Your task to perform on an android device: Open Wikipedia Image 0: 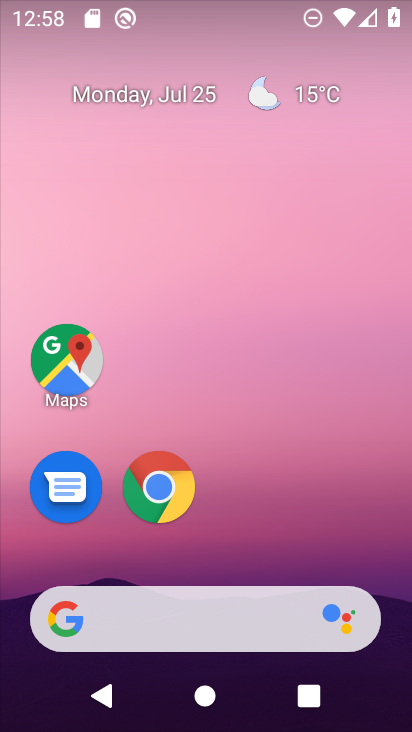
Step 0: click (143, 495)
Your task to perform on an android device: Open Wikipedia Image 1: 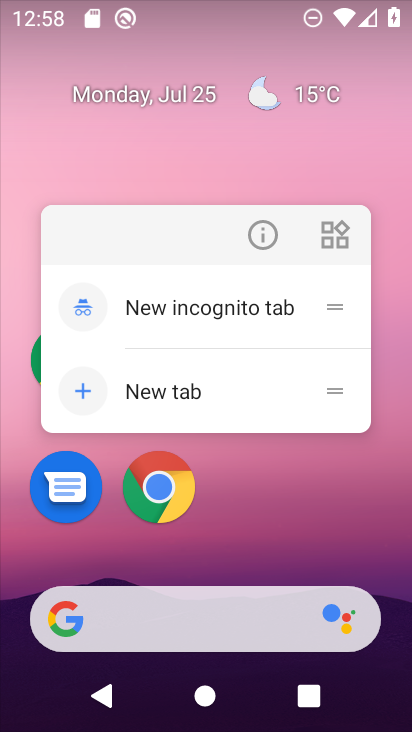
Step 1: click (155, 483)
Your task to perform on an android device: Open Wikipedia Image 2: 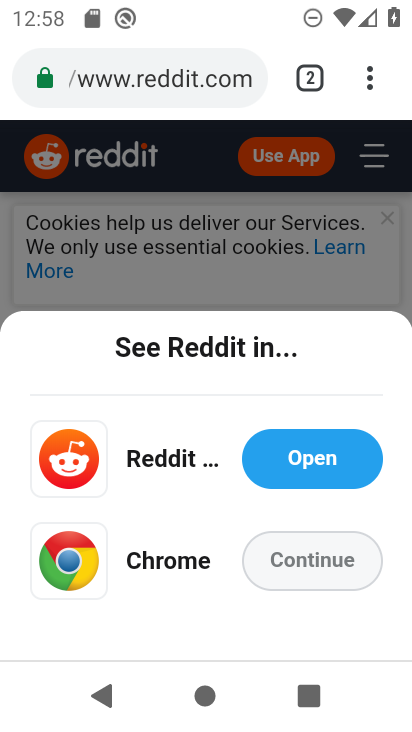
Step 2: click (311, 80)
Your task to perform on an android device: Open Wikipedia Image 3: 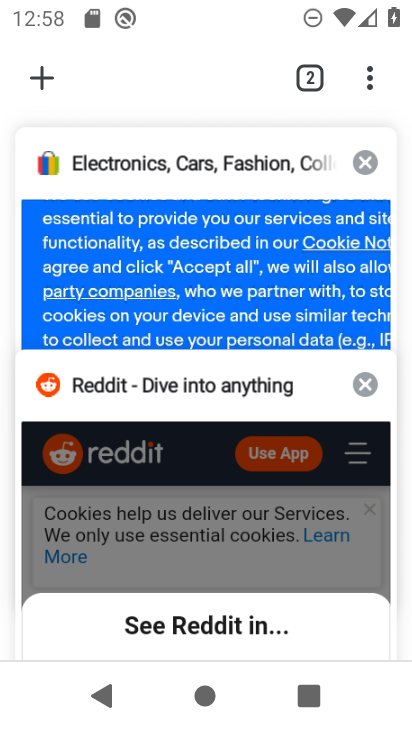
Step 3: click (43, 68)
Your task to perform on an android device: Open Wikipedia Image 4: 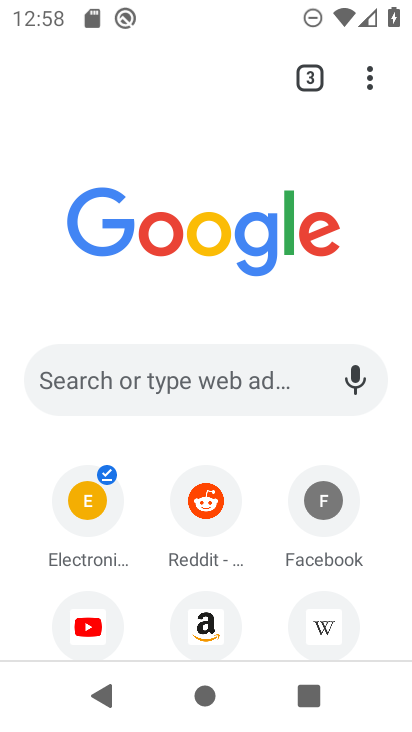
Step 4: click (310, 617)
Your task to perform on an android device: Open Wikipedia Image 5: 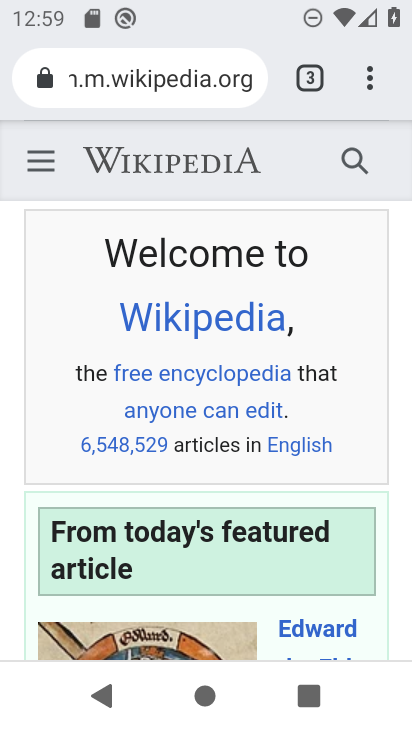
Step 5: task complete